Your task to perform on an android device: turn off notifications in google photos Image 0: 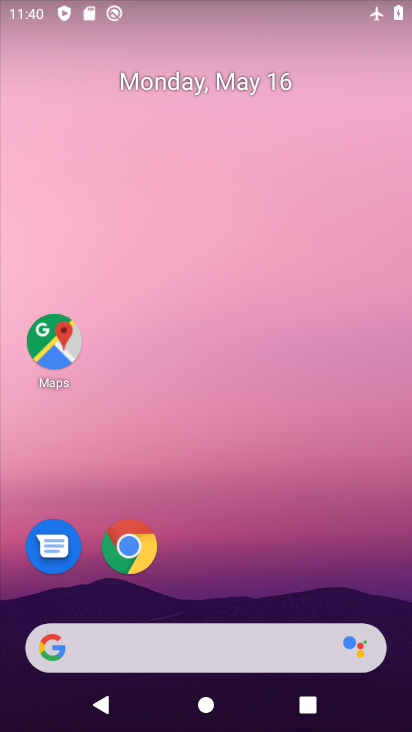
Step 0: drag from (396, 642) to (313, 82)
Your task to perform on an android device: turn off notifications in google photos Image 1: 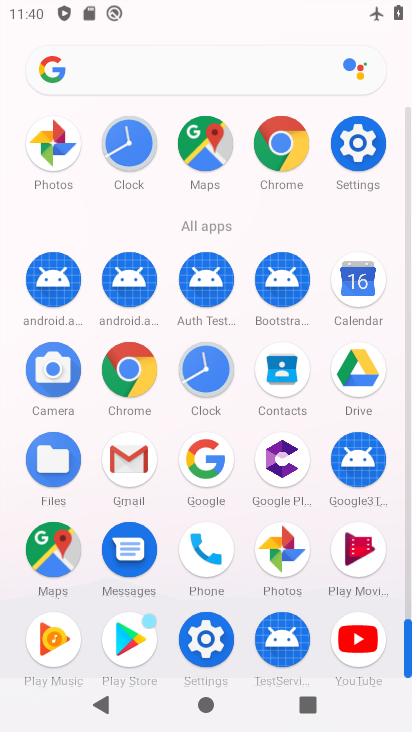
Step 1: click (407, 608)
Your task to perform on an android device: turn off notifications in google photos Image 2: 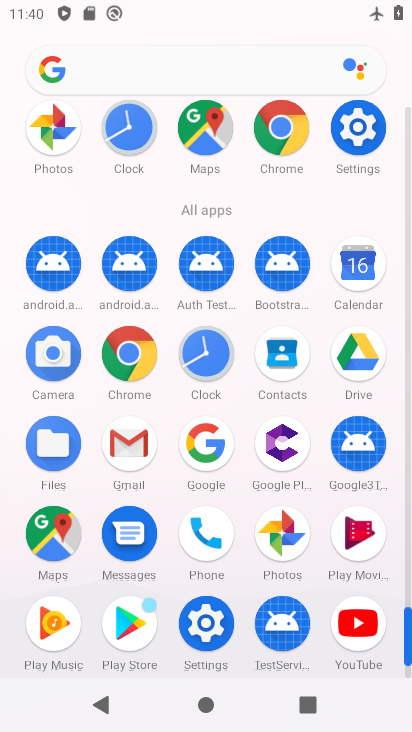
Step 2: click (278, 528)
Your task to perform on an android device: turn off notifications in google photos Image 3: 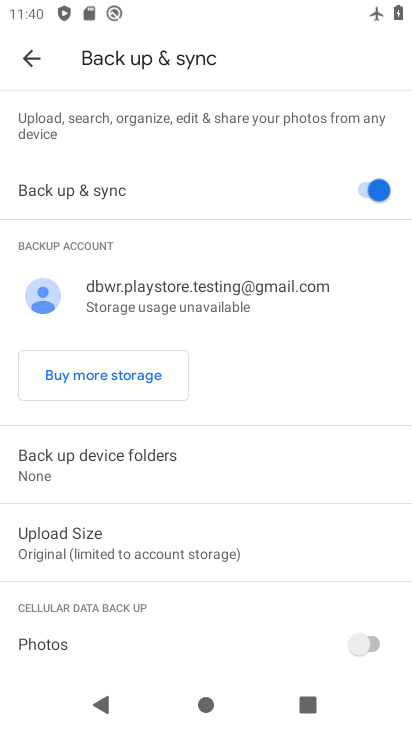
Step 3: press back button
Your task to perform on an android device: turn off notifications in google photos Image 4: 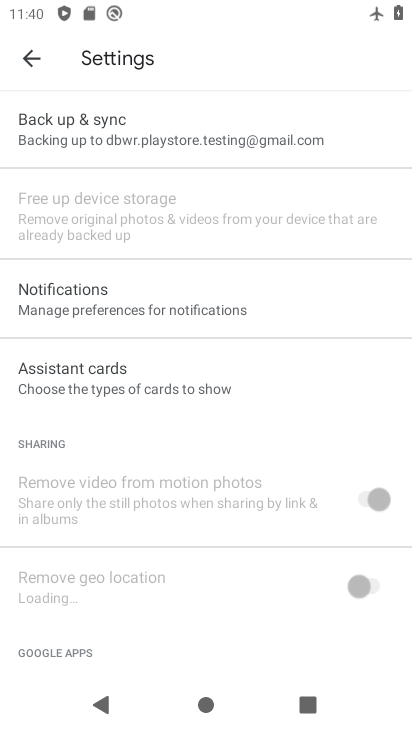
Step 4: click (46, 300)
Your task to perform on an android device: turn off notifications in google photos Image 5: 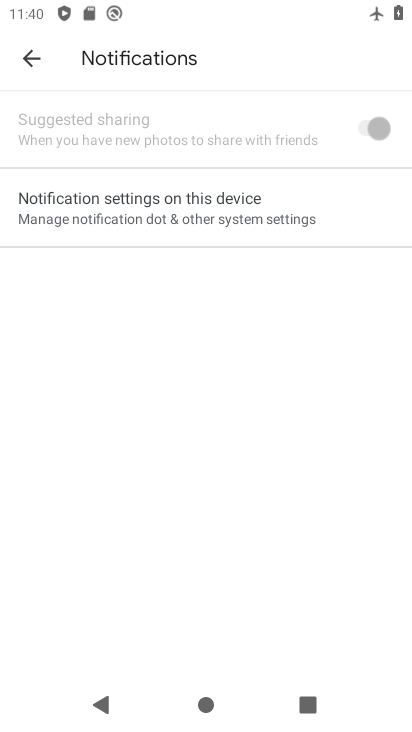
Step 5: click (165, 203)
Your task to perform on an android device: turn off notifications in google photos Image 6: 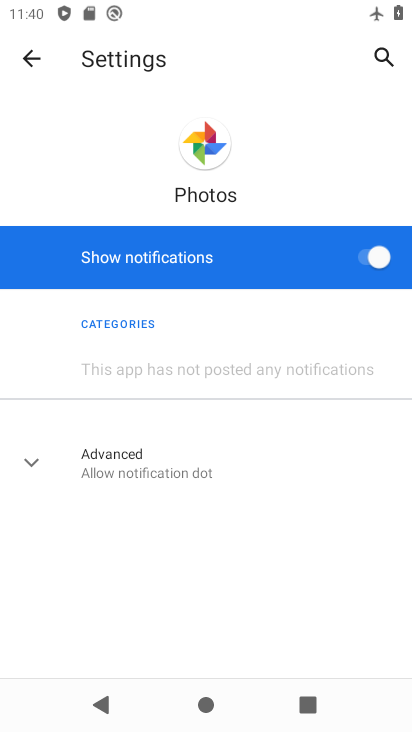
Step 6: click (360, 260)
Your task to perform on an android device: turn off notifications in google photos Image 7: 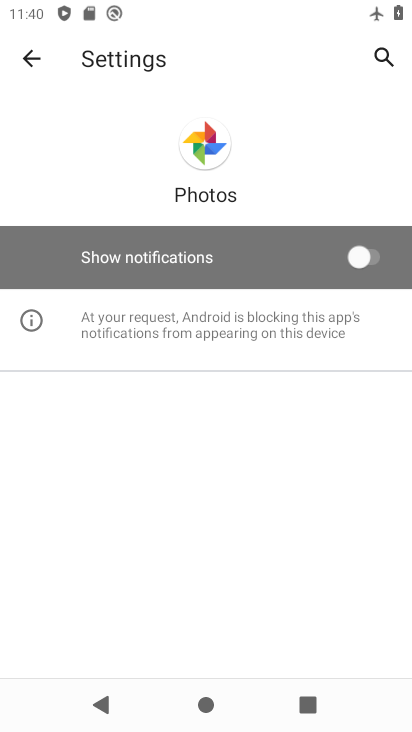
Step 7: task complete